Your task to perform on an android device: turn off notifications in google photos Image 0: 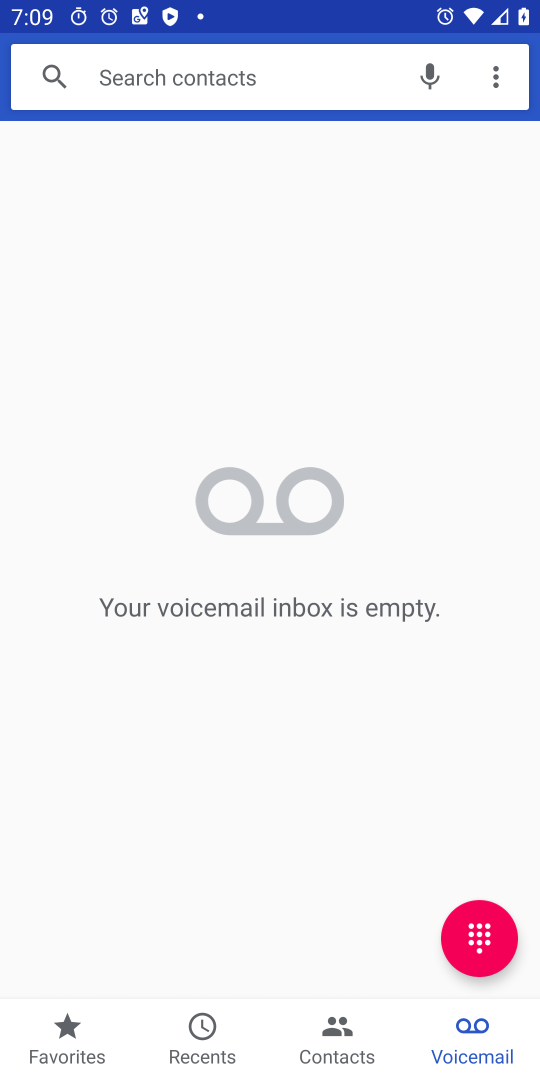
Step 0: press home button
Your task to perform on an android device: turn off notifications in google photos Image 1: 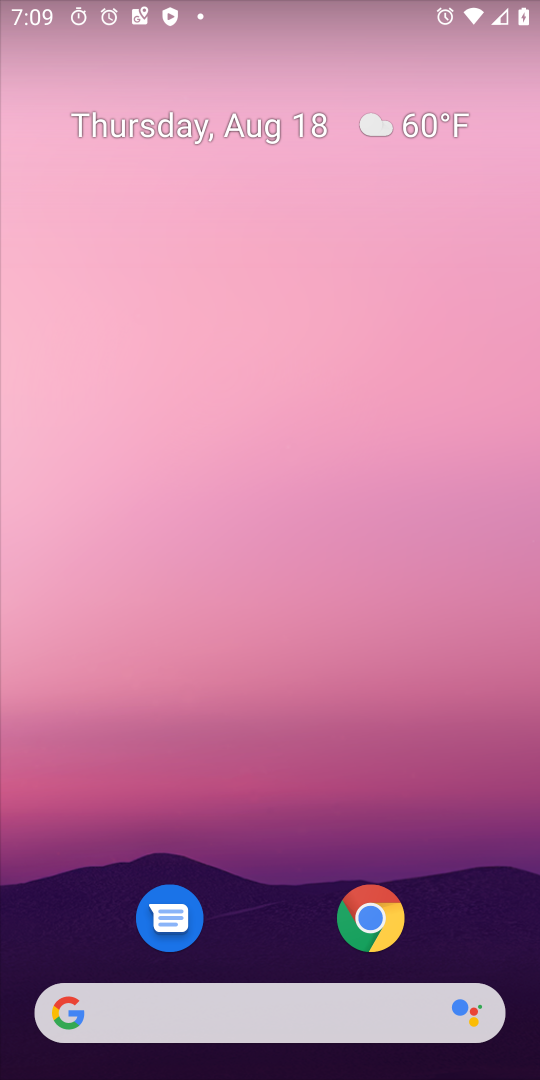
Step 1: drag from (267, 886) to (277, 170)
Your task to perform on an android device: turn off notifications in google photos Image 2: 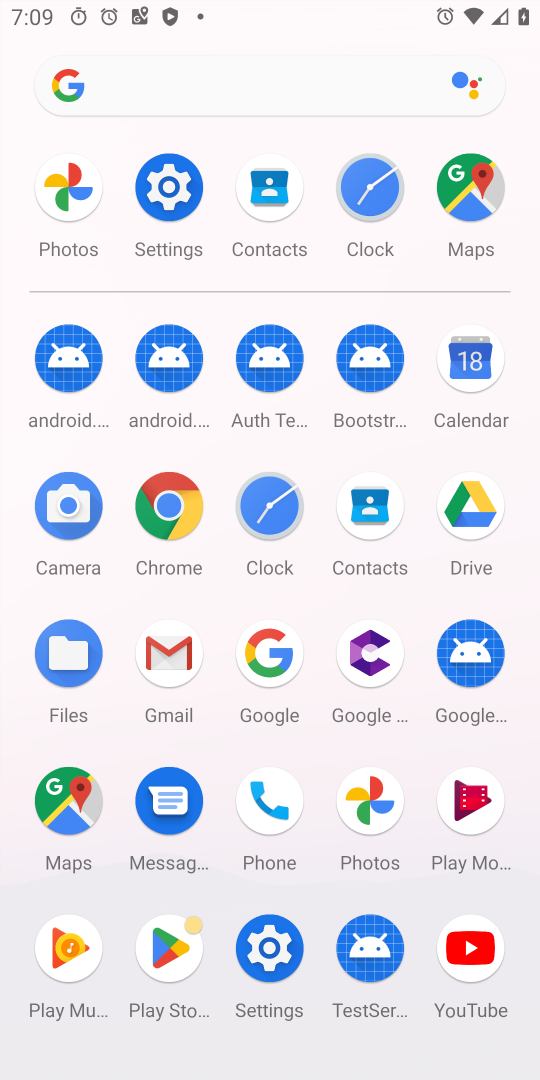
Step 2: click (77, 192)
Your task to perform on an android device: turn off notifications in google photos Image 3: 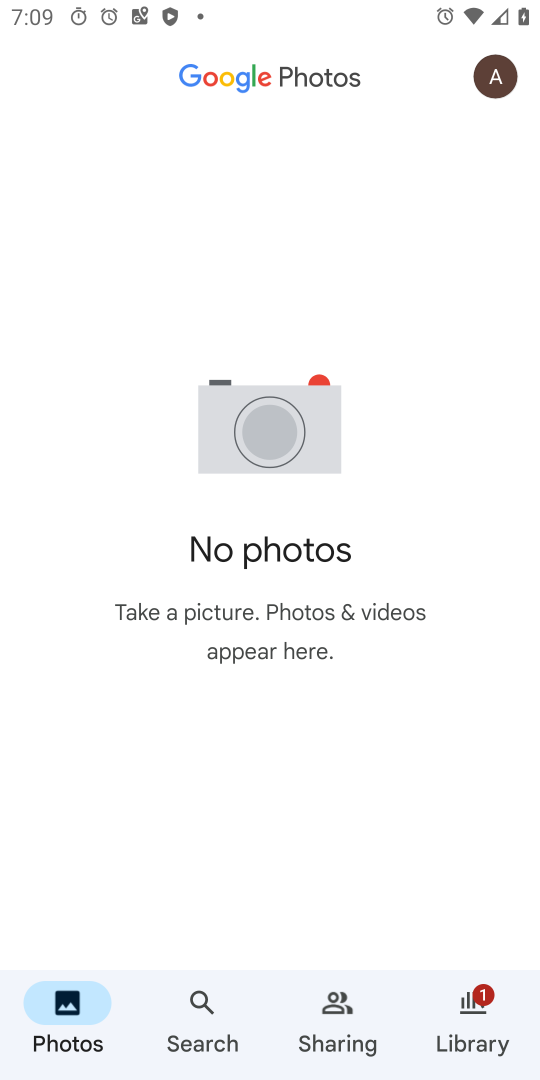
Step 3: click (493, 93)
Your task to perform on an android device: turn off notifications in google photos Image 4: 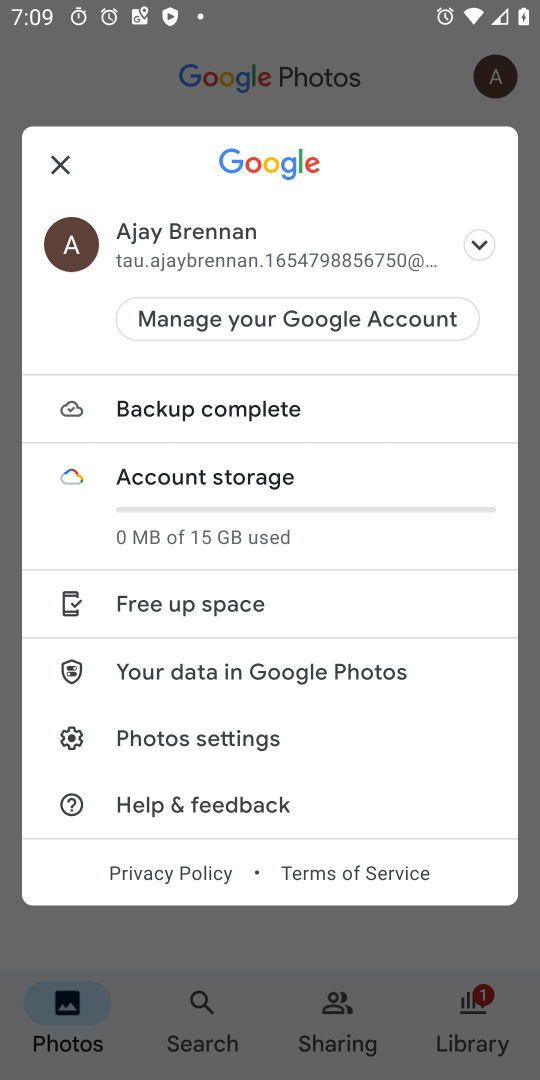
Step 4: click (196, 737)
Your task to perform on an android device: turn off notifications in google photos Image 5: 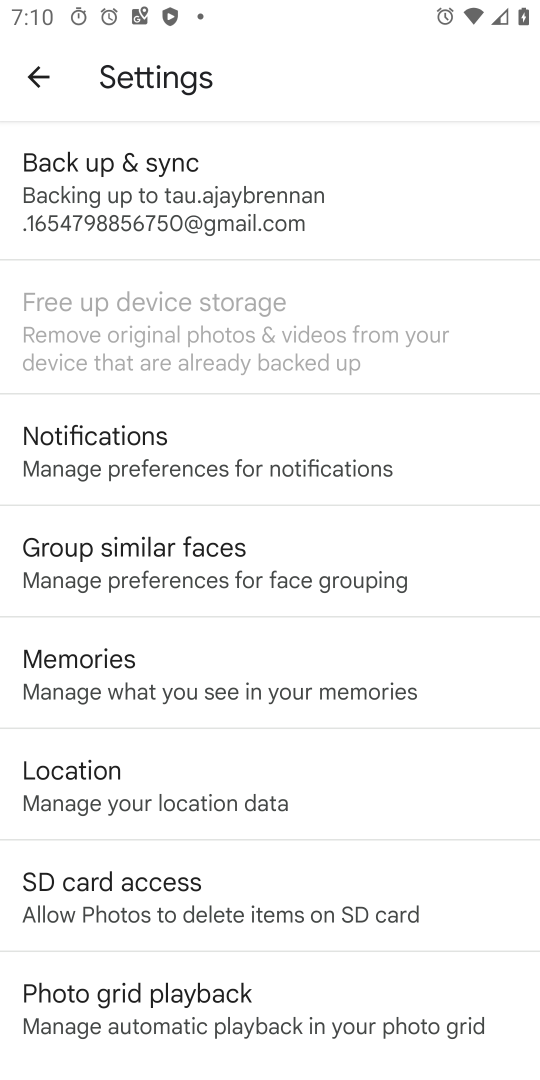
Step 5: click (99, 452)
Your task to perform on an android device: turn off notifications in google photos Image 6: 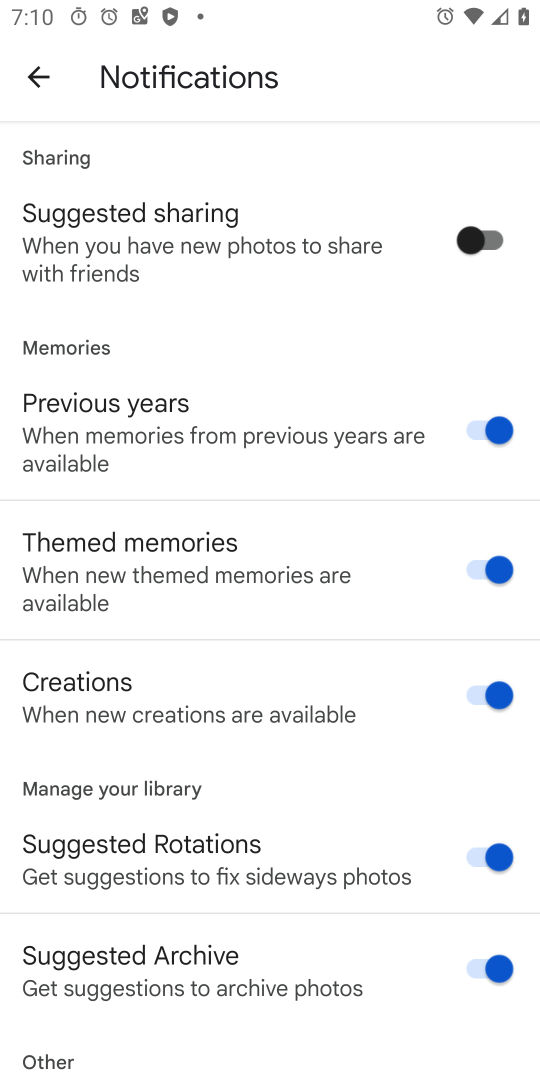
Step 6: task complete